Your task to perform on an android device: open a new tab in the chrome app Image 0: 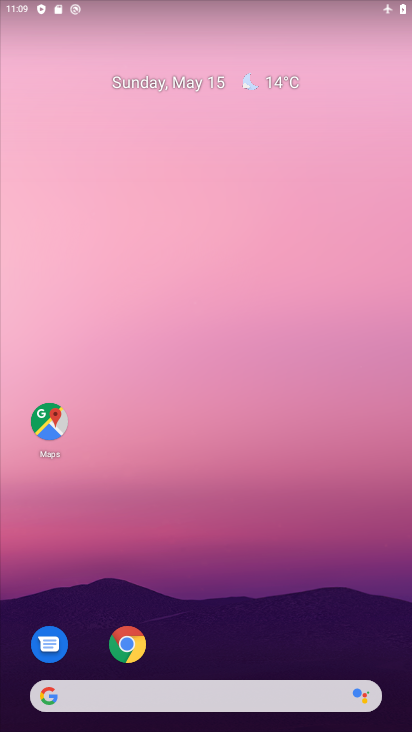
Step 0: click (127, 645)
Your task to perform on an android device: open a new tab in the chrome app Image 1: 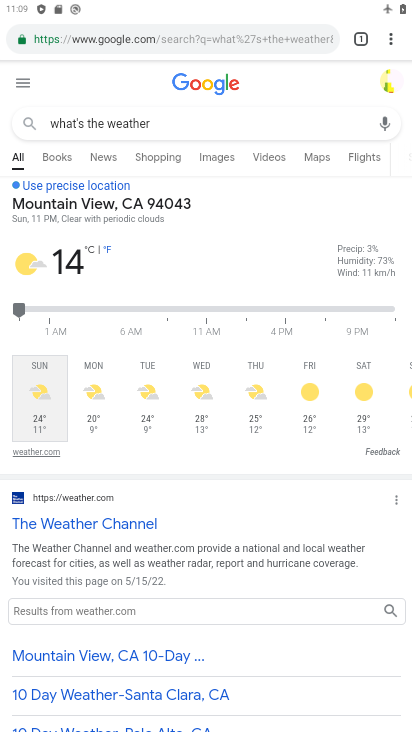
Step 1: click (392, 36)
Your task to perform on an android device: open a new tab in the chrome app Image 2: 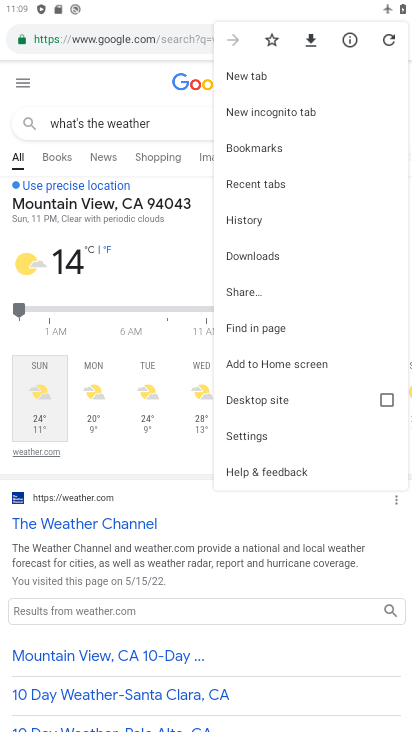
Step 2: click (238, 77)
Your task to perform on an android device: open a new tab in the chrome app Image 3: 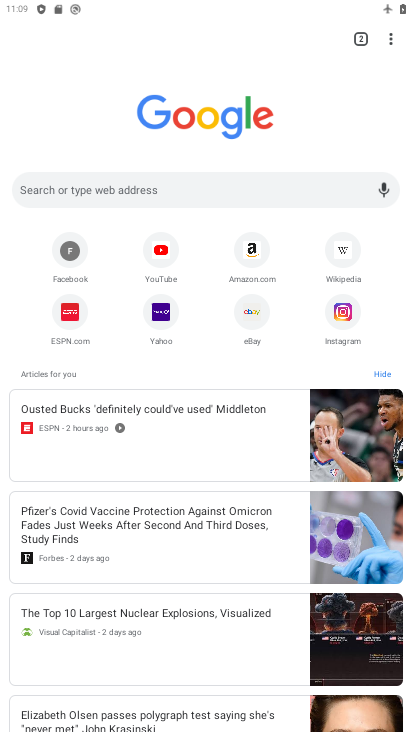
Step 3: task complete